Your task to perform on an android device: turn off notifications in google photos Image 0: 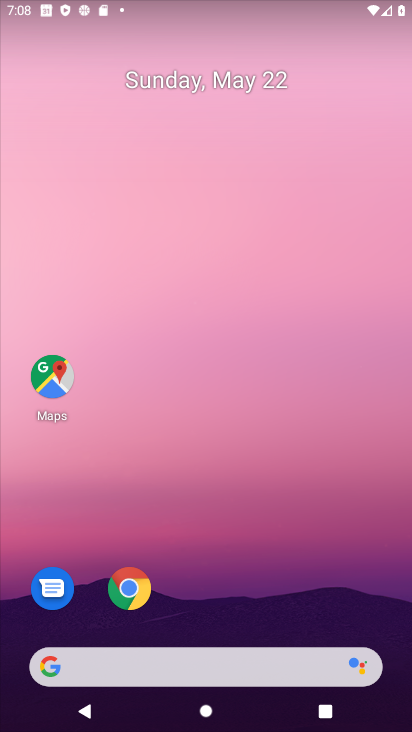
Step 0: drag from (216, 518) to (253, 16)
Your task to perform on an android device: turn off notifications in google photos Image 1: 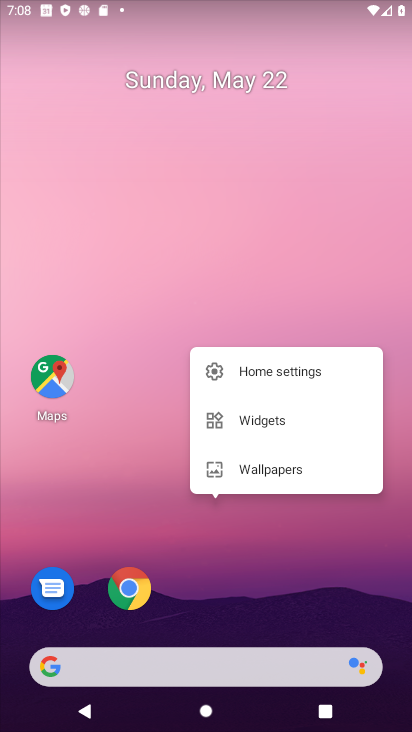
Step 1: click (126, 331)
Your task to perform on an android device: turn off notifications in google photos Image 2: 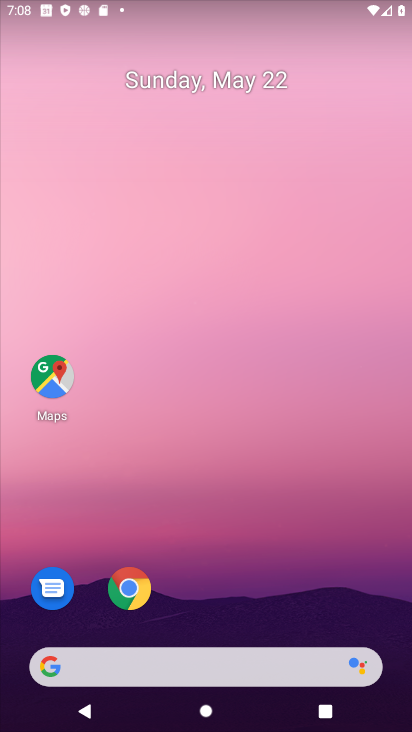
Step 2: drag from (246, 585) to (228, 31)
Your task to perform on an android device: turn off notifications in google photos Image 3: 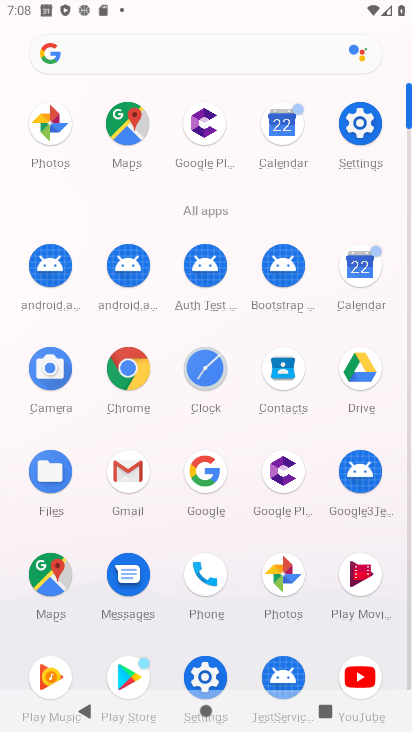
Step 3: click (47, 123)
Your task to perform on an android device: turn off notifications in google photos Image 4: 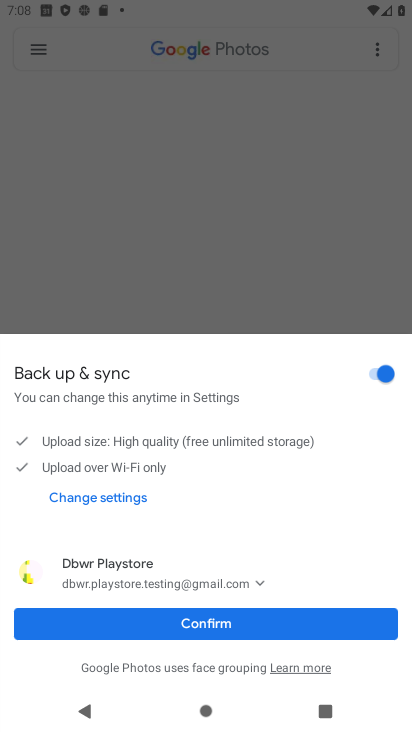
Step 4: click (219, 625)
Your task to perform on an android device: turn off notifications in google photos Image 5: 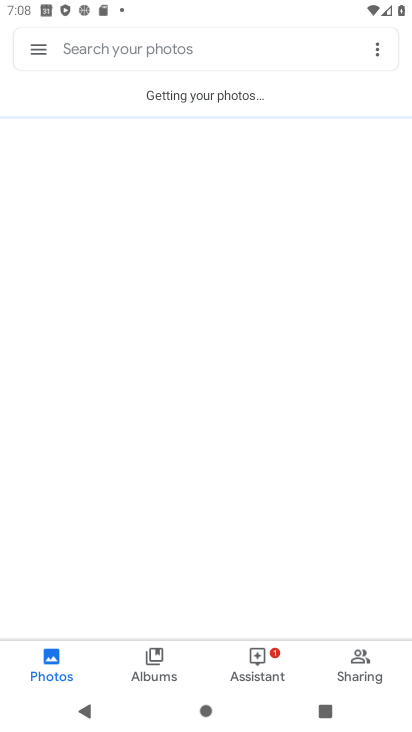
Step 5: click (42, 45)
Your task to perform on an android device: turn off notifications in google photos Image 6: 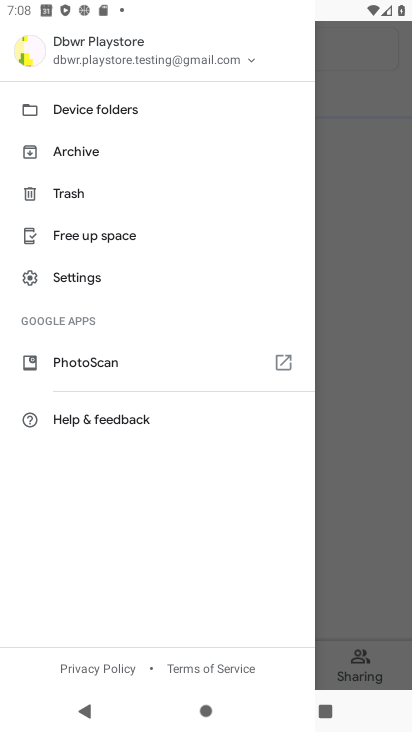
Step 6: click (79, 280)
Your task to perform on an android device: turn off notifications in google photos Image 7: 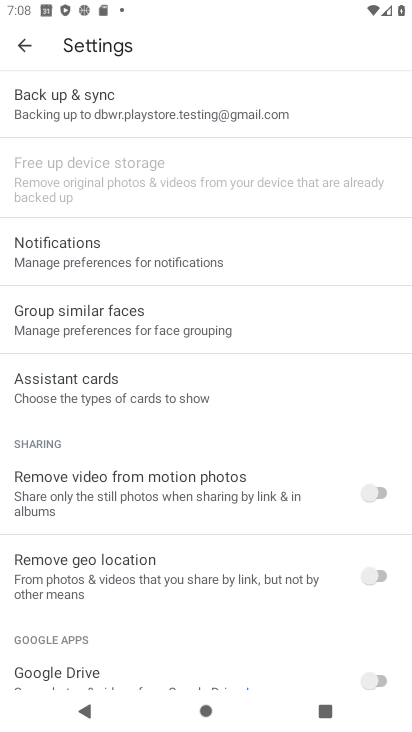
Step 7: click (52, 239)
Your task to perform on an android device: turn off notifications in google photos Image 8: 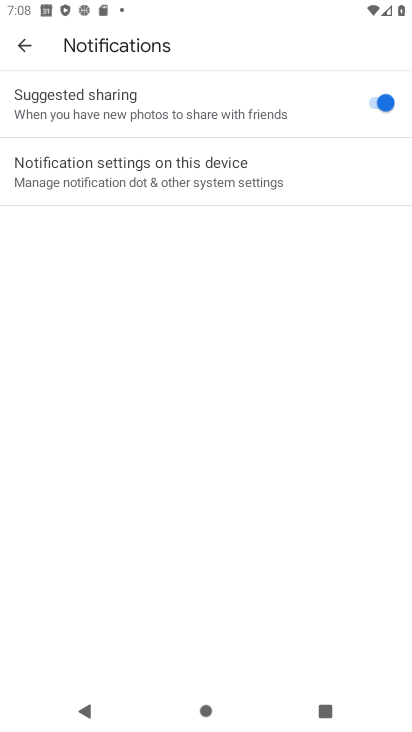
Step 8: click (151, 159)
Your task to perform on an android device: turn off notifications in google photos Image 9: 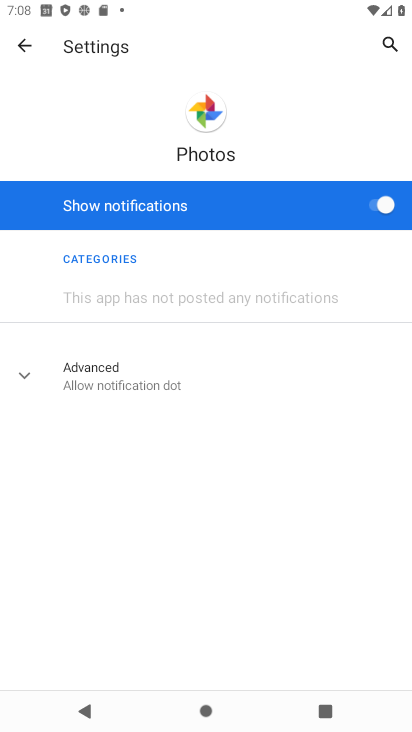
Step 9: click (388, 216)
Your task to perform on an android device: turn off notifications in google photos Image 10: 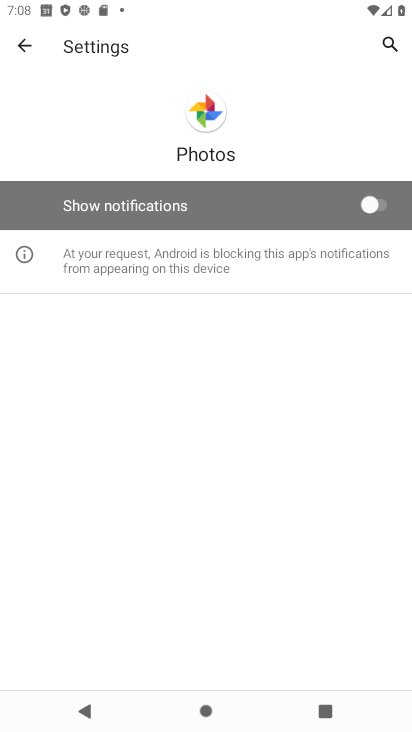
Step 10: task complete